Your task to perform on an android device: Open Wikipedia Image 0: 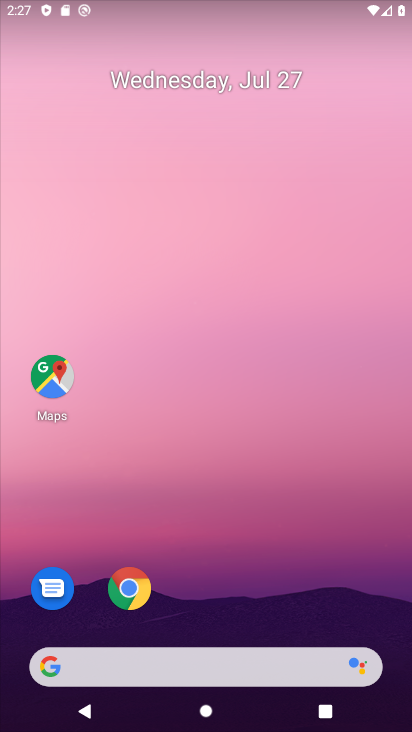
Step 0: click (218, 162)
Your task to perform on an android device: Open Wikipedia Image 1: 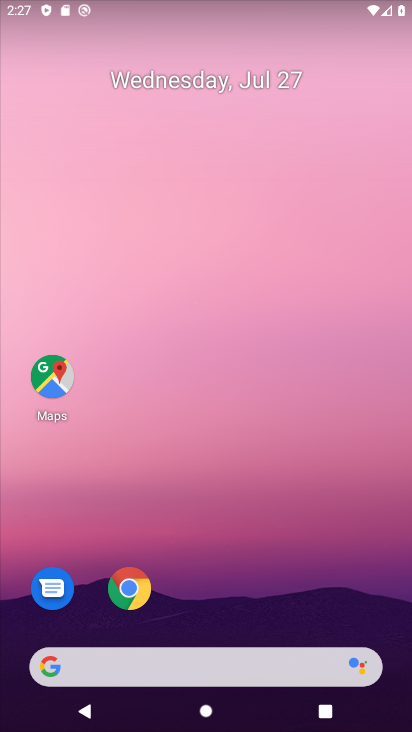
Step 1: click (136, 52)
Your task to perform on an android device: Open Wikipedia Image 2: 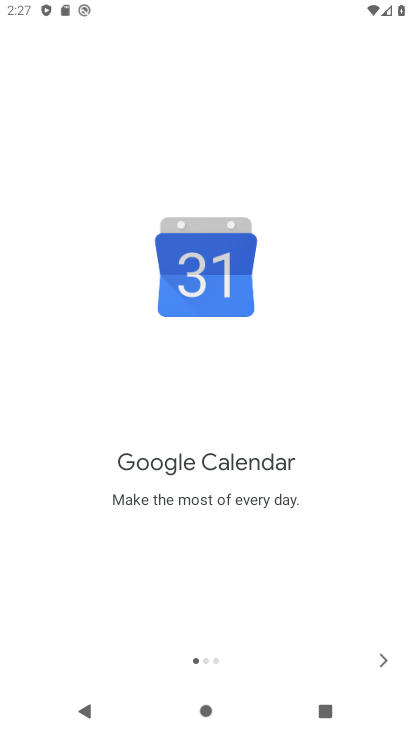
Step 2: click (376, 662)
Your task to perform on an android device: Open Wikipedia Image 3: 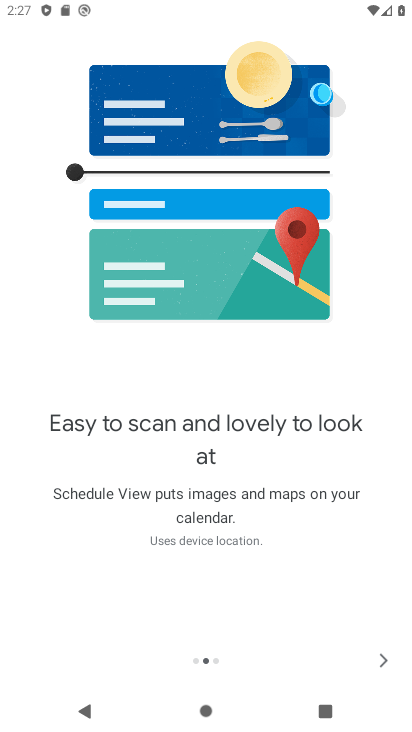
Step 3: click (376, 662)
Your task to perform on an android device: Open Wikipedia Image 4: 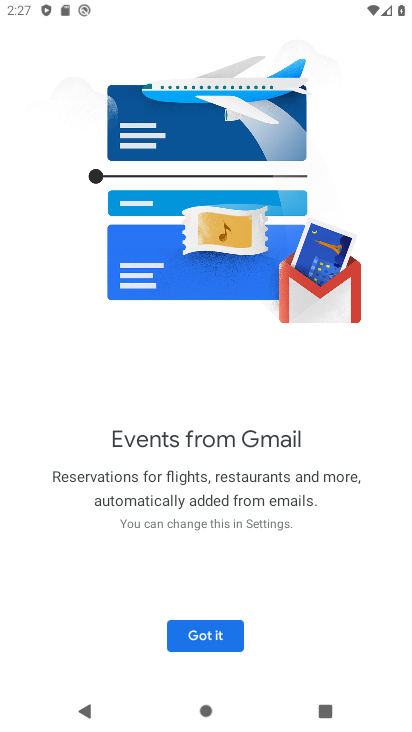
Step 4: click (214, 625)
Your task to perform on an android device: Open Wikipedia Image 5: 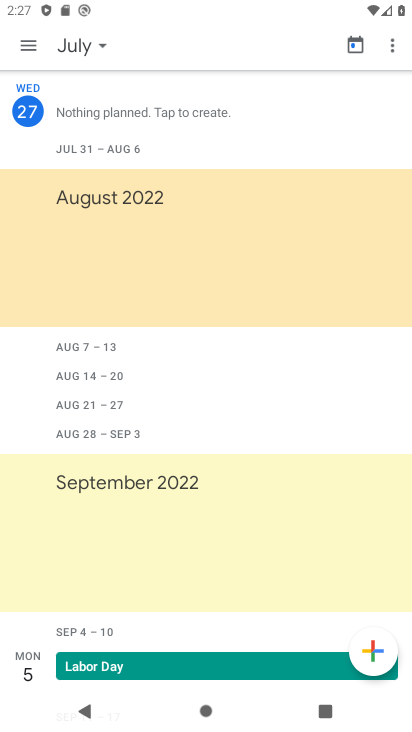
Step 5: press back button
Your task to perform on an android device: Open Wikipedia Image 6: 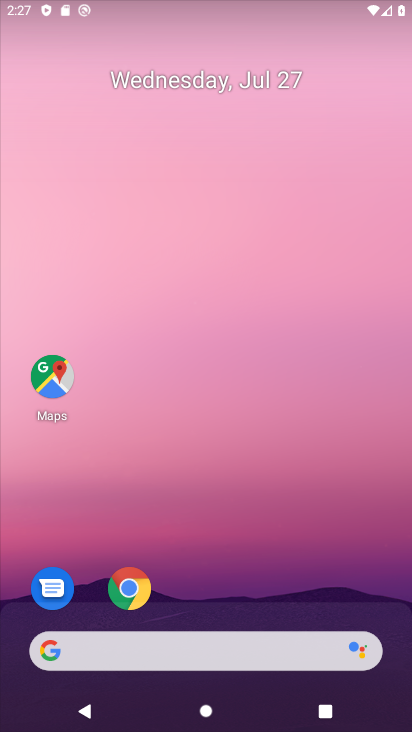
Step 6: drag from (163, 1) to (216, 96)
Your task to perform on an android device: Open Wikipedia Image 7: 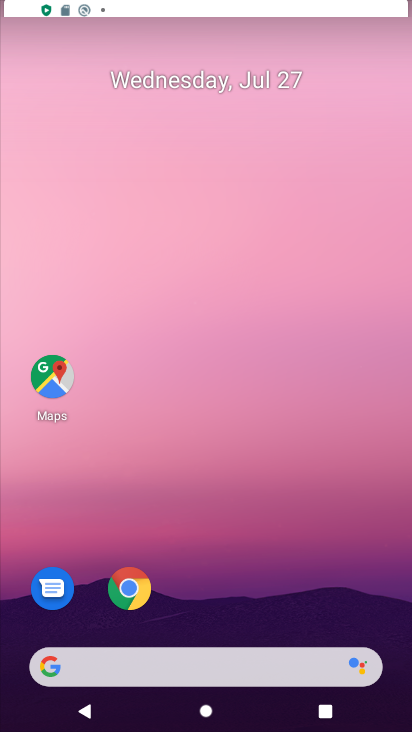
Step 7: drag from (224, 639) to (202, 304)
Your task to perform on an android device: Open Wikipedia Image 8: 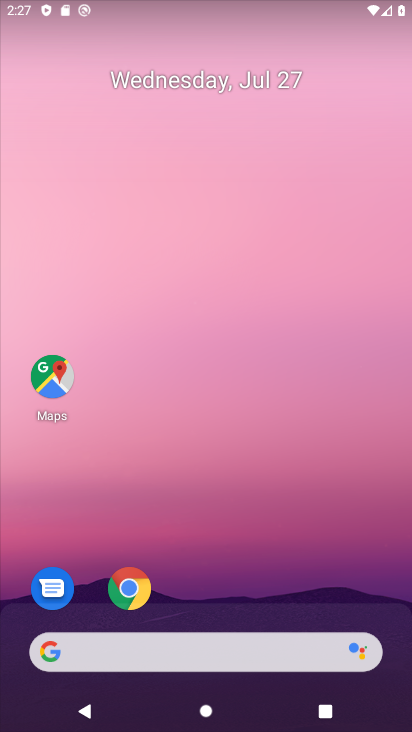
Step 8: drag from (260, 504) to (243, 79)
Your task to perform on an android device: Open Wikipedia Image 9: 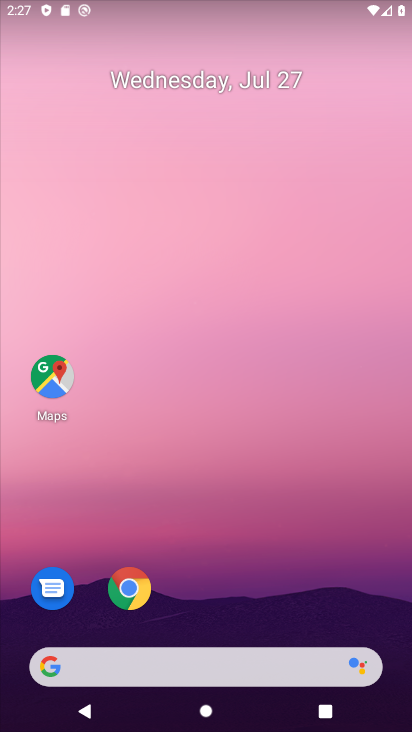
Step 9: drag from (264, 444) to (254, 93)
Your task to perform on an android device: Open Wikipedia Image 10: 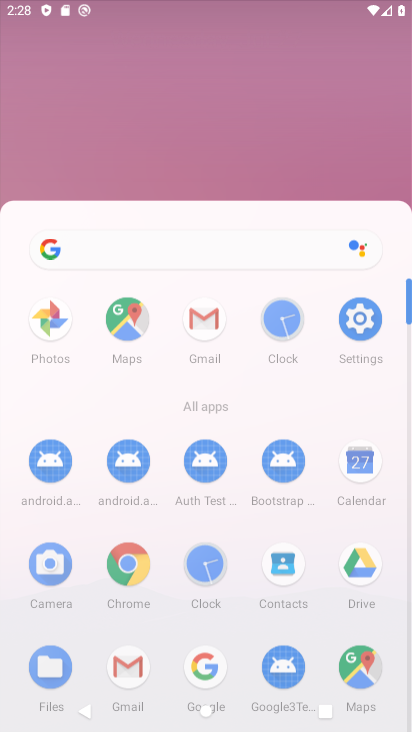
Step 10: drag from (249, 465) to (175, 58)
Your task to perform on an android device: Open Wikipedia Image 11: 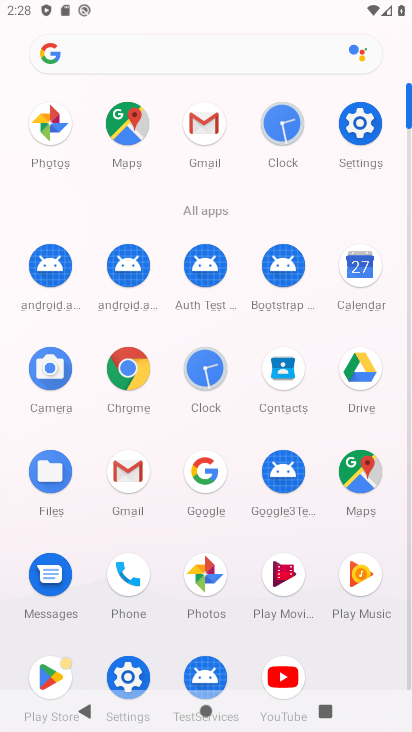
Step 11: click (125, 366)
Your task to perform on an android device: Open Wikipedia Image 12: 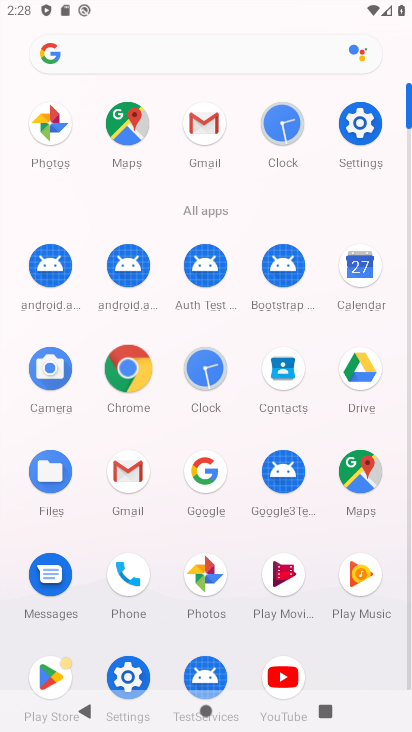
Step 12: click (125, 366)
Your task to perform on an android device: Open Wikipedia Image 13: 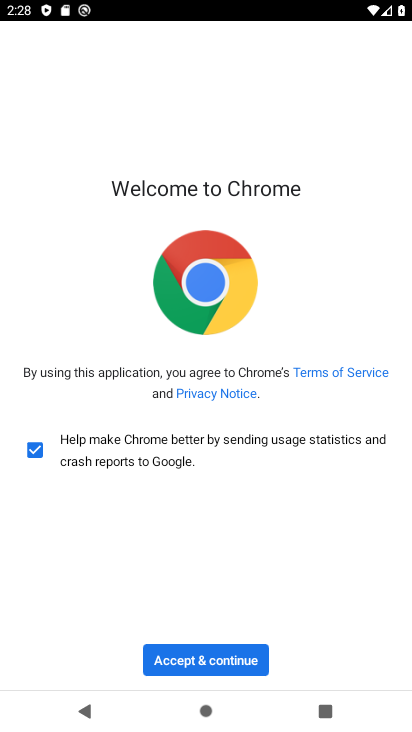
Step 13: click (219, 650)
Your task to perform on an android device: Open Wikipedia Image 14: 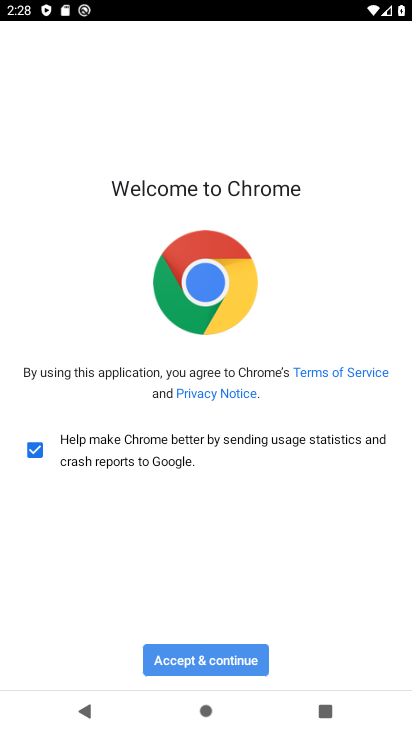
Step 14: click (231, 661)
Your task to perform on an android device: Open Wikipedia Image 15: 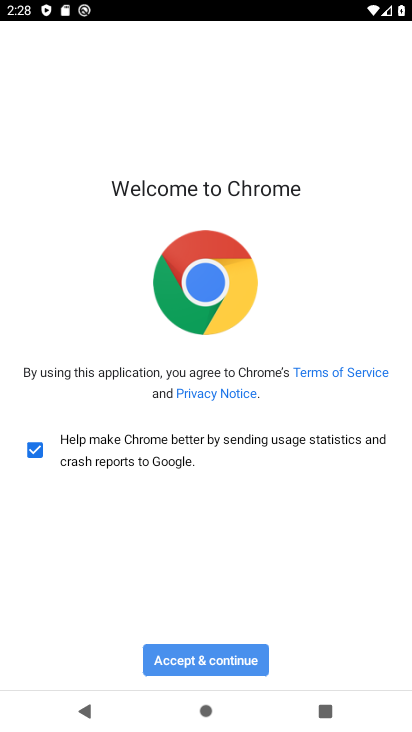
Step 15: click (231, 661)
Your task to perform on an android device: Open Wikipedia Image 16: 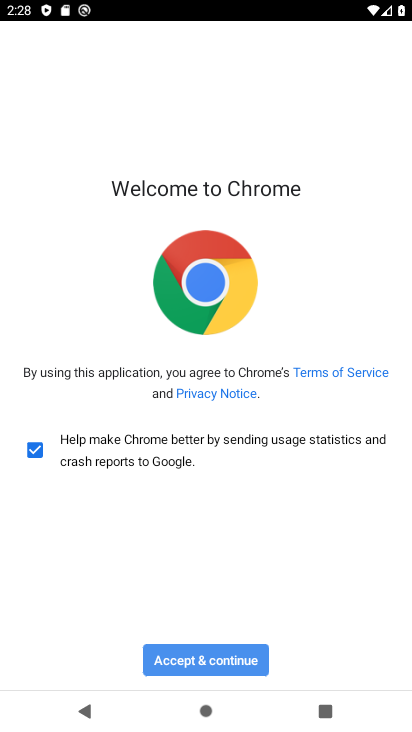
Step 16: click (231, 661)
Your task to perform on an android device: Open Wikipedia Image 17: 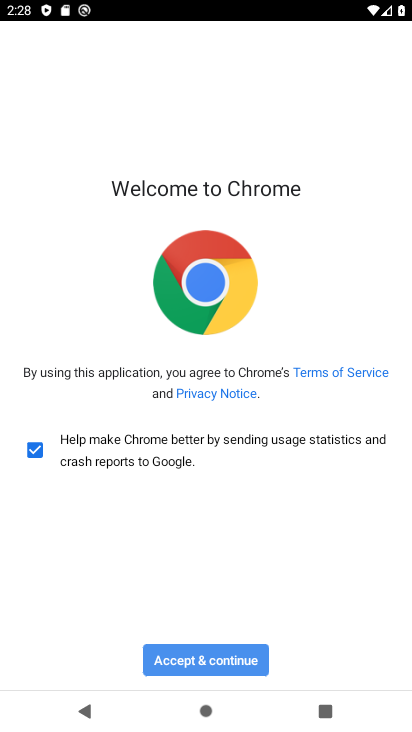
Step 17: click (235, 657)
Your task to perform on an android device: Open Wikipedia Image 18: 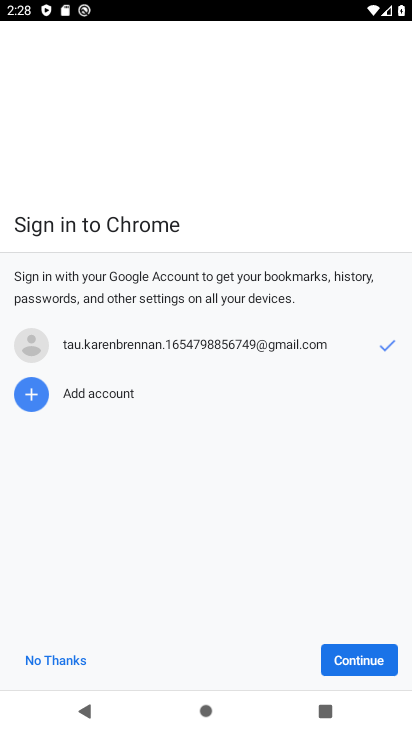
Step 18: click (240, 656)
Your task to perform on an android device: Open Wikipedia Image 19: 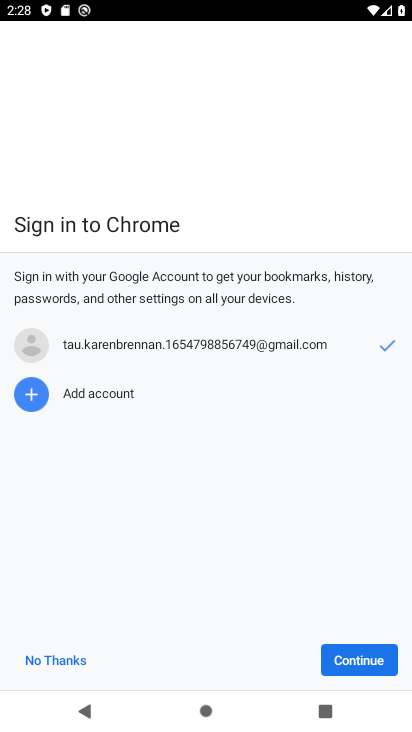
Step 19: click (241, 656)
Your task to perform on an android device: Open Wikipedia Image 20: 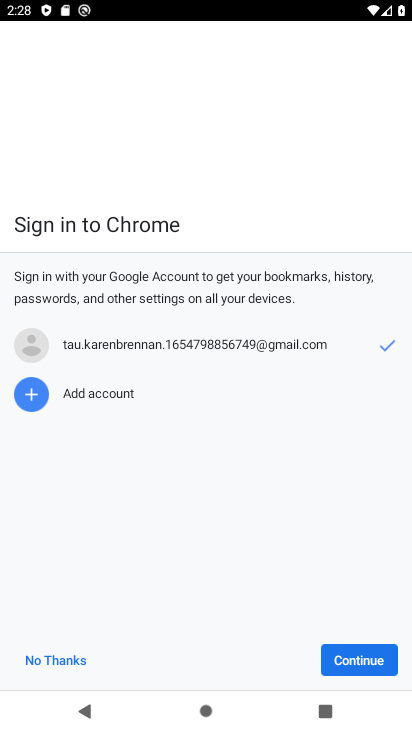
Step 20: click (241, 656)
Your task to perform on an android device: Open Wikipedia Image 21: 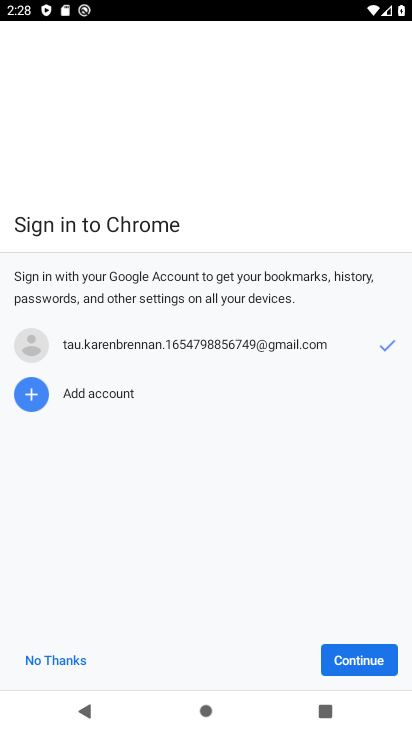
Step 21: click (82, 656)
Your task to perform on an android device: Open Wikipedia Image 22: 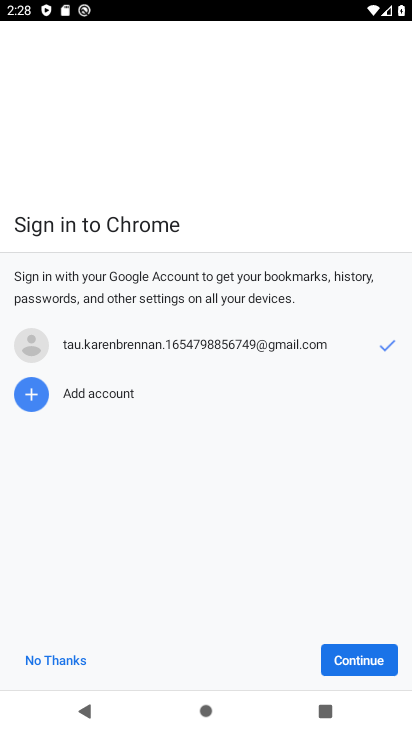
Step 22: click (76, 651)
Your task to perform on an android device: Open Wikipedia Image 23: 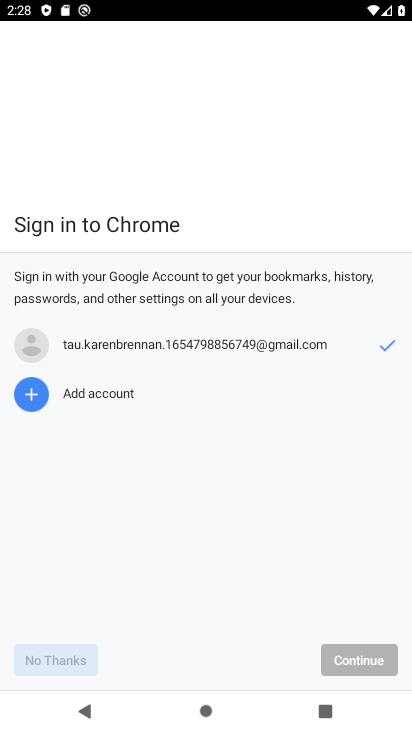
Step 23: click (77, 650)
Your task to perform on an android device: Open Wikipedia Image 24: 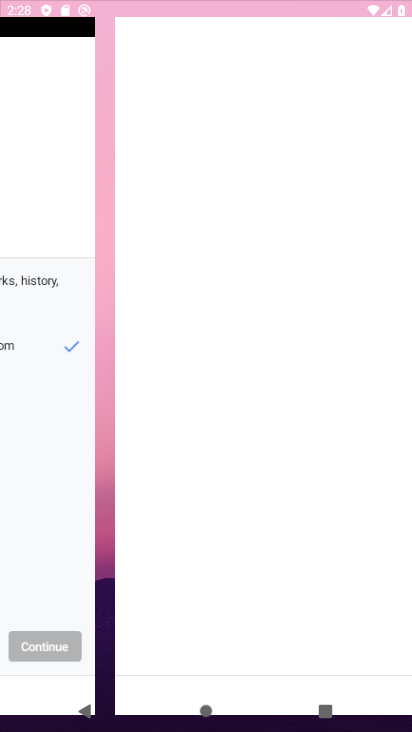
Step 24: click (80, 649)
Your task to perform on an android device: Open Wikipedia Image 25: 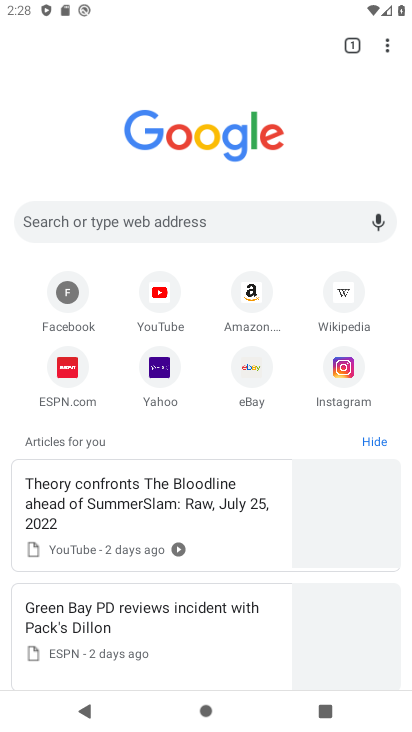
Step 25: click (339, 292)
Your task to perform on an android device: Open Wikipedia Image 26: 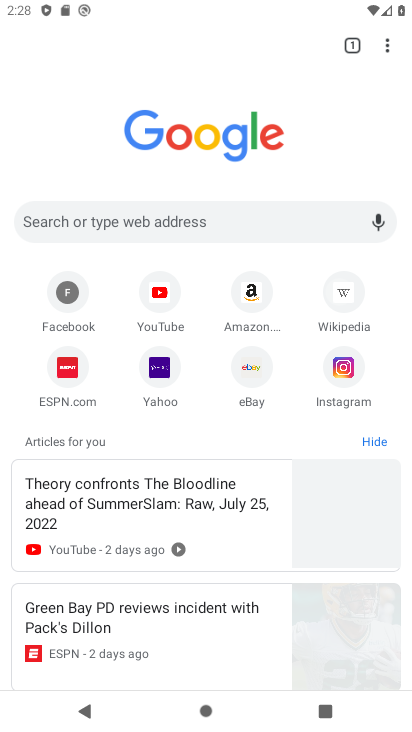
Step 26: click (340, 291)
Your task to perform on an android device: Open Wikipedia Image 27: 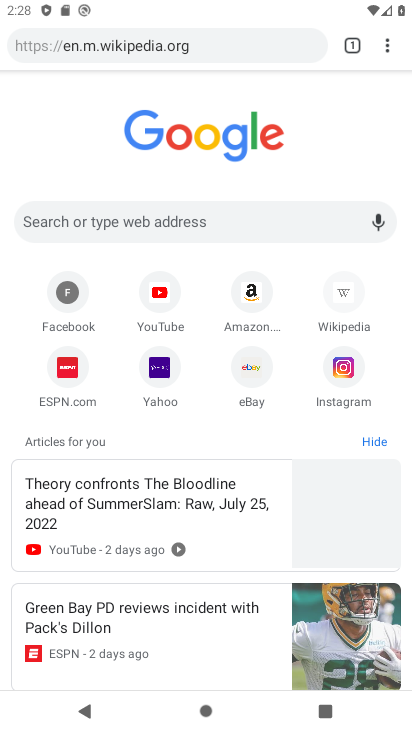
Step 27: click (343, 285)
Your task to perform on an android device: Open Wikipedia Image 28: 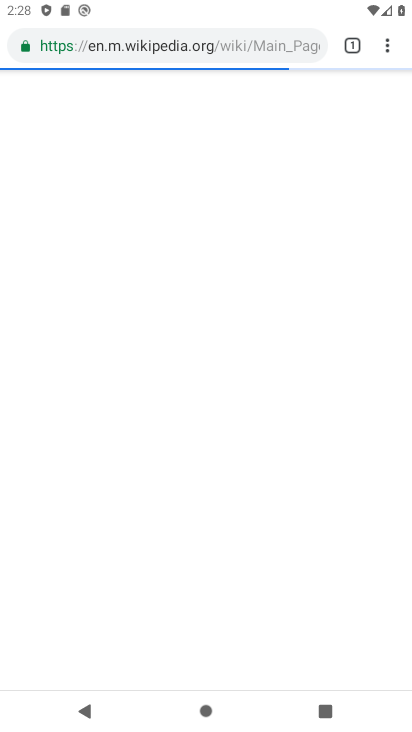
Step 28: task complete